Your task to perform on an android device: change the clock display to show seconds Image 0: 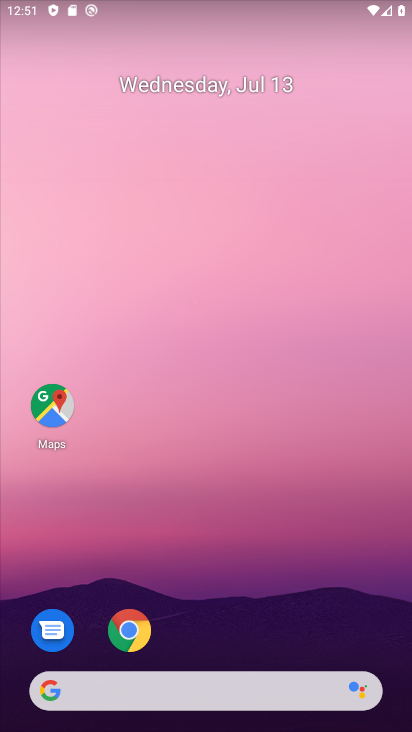
Step 0: drag from (222, 596) to (346, 144)
Your task to perform on an android device: change the clock display to show seconds Image 1: 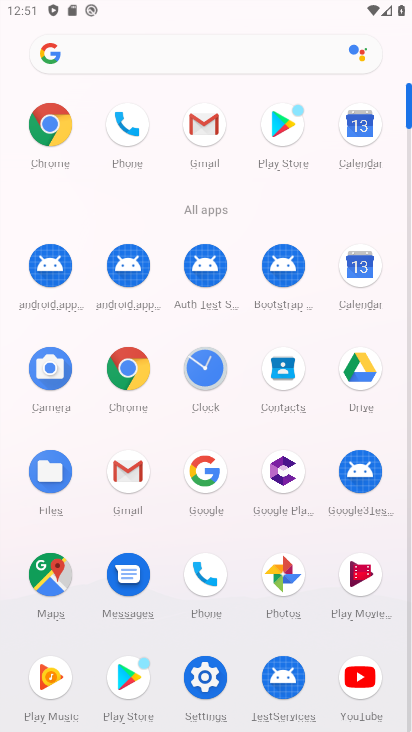
Step 1: click (211, 359)
Your task to perform on an android device: change the clock display to show seconds Image 2: 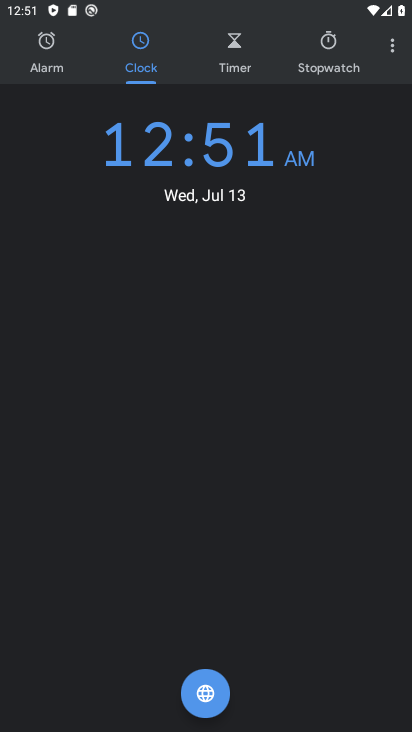
Step 2: click (395, 49)
Your task to perform on an android device: change the clock display to show seconds Image 3: 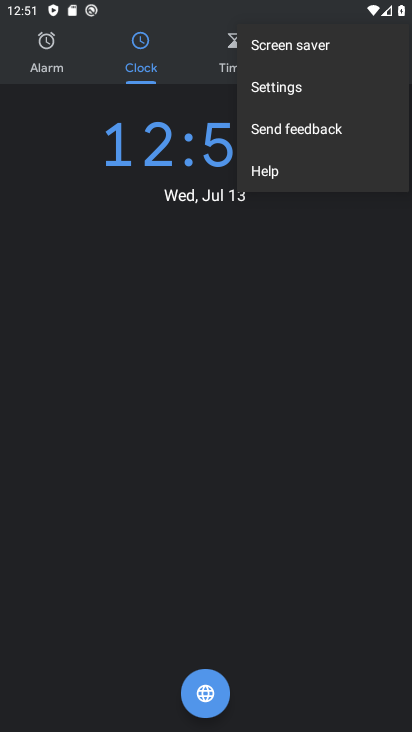
Step 3: click (282, 87)
Your task to perform on an android device: change the clock display to show seconds Image 4: 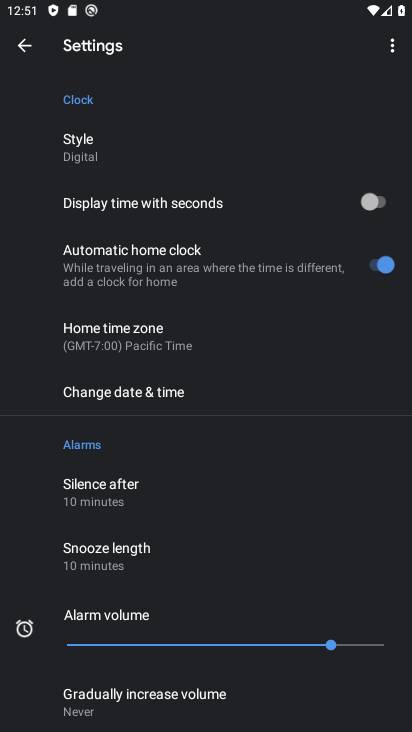
Step 4: click (382, 196)
Your task to perform on an android device: change the clock display to show seconds Image 5: 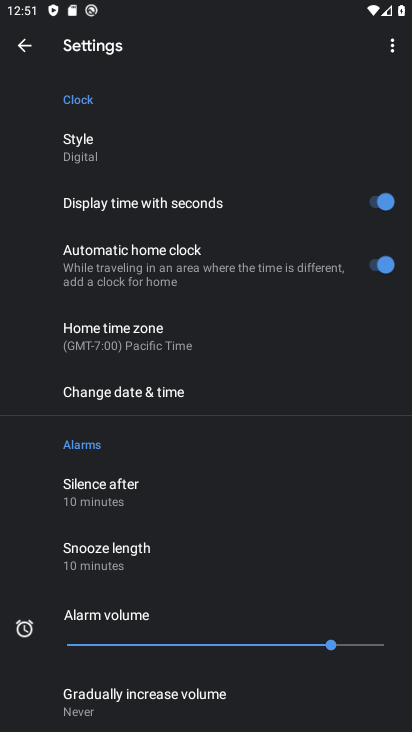
Step 5: task complete